Your task to perform on an android device: How much does a3 bedroom apartment rent for in Portland? Image 0: 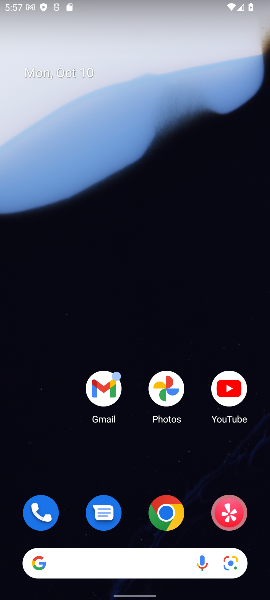
Step 0: click (85, 561)
Your task to perform on an android device: How much does a3 bedroom apartment rent for in Portland? Image 1: 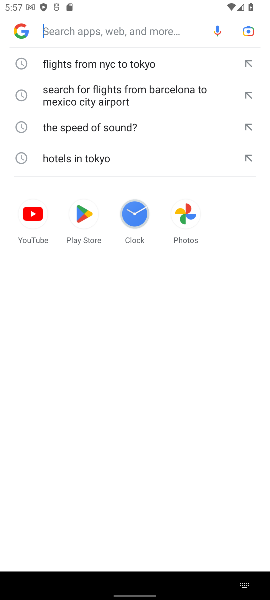
Step 1: type " a3 bedroom apartment rent for in Portland"
Your task to perform on an android device: How much does a3 bedroom apartment rent for in Portland? Image 2: 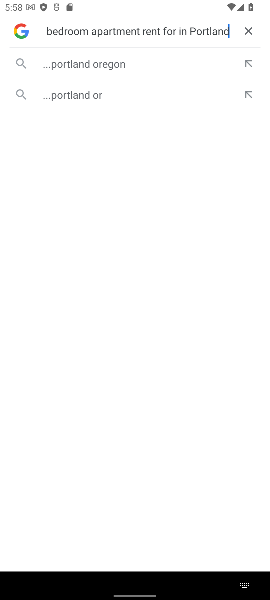
Step 2: click (78, 67)
Your task to perform on an android device: How much does a3 bedroom apartment rent for in Portland? Image 3: 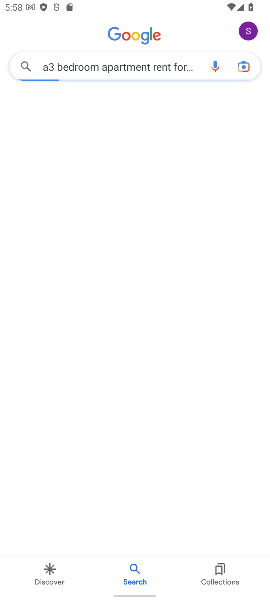
Step 3: task complete